Your task to perform on an android device: Go to wifi settings Image 0: 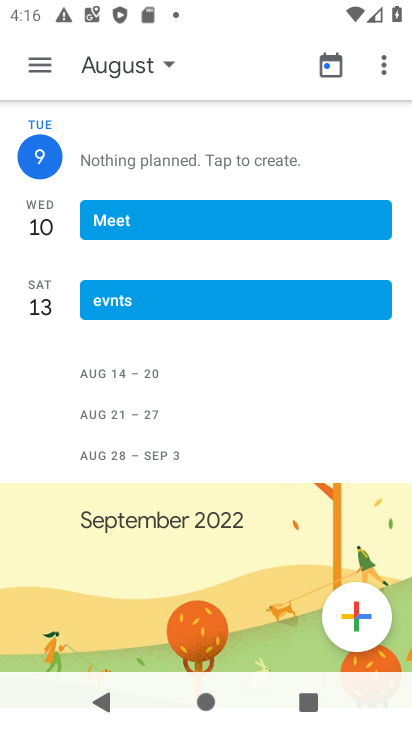
Step 0: drag from (183, 9) to (253, 431)
Your task to perform on an android device: Go to wifi settings Image 1: 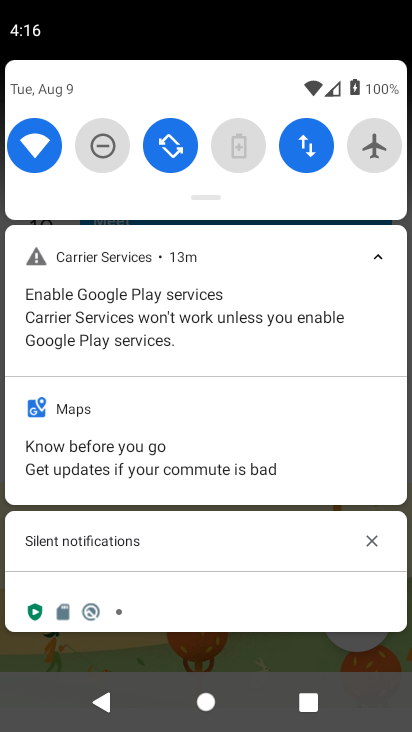
Step 1: click (42, 146)
Your task to perform on an android device: Go to wifi settings Image 2: 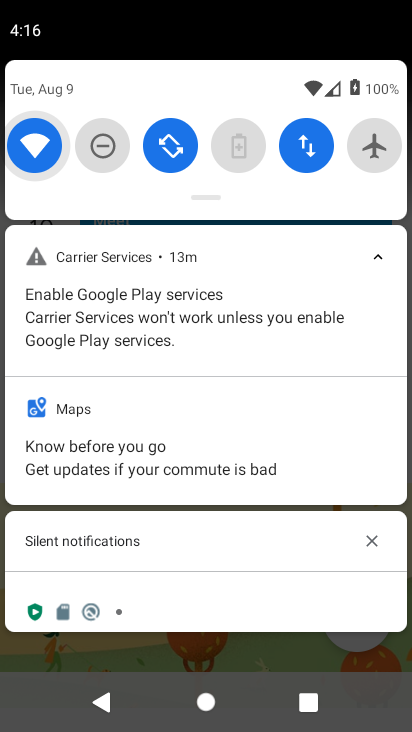
Step 2: click (42, 146)
Your task to perform on an android device: Go to wifi settings Image 3: 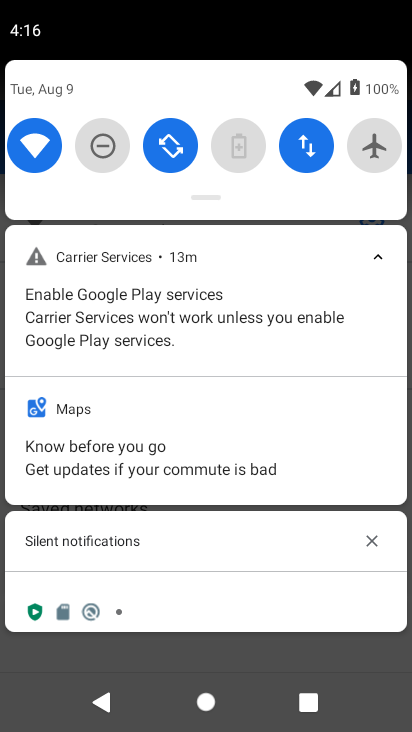
Step 3: click (50, 150)
Your task to perform on an android device: Go to wifi settings Image 4: 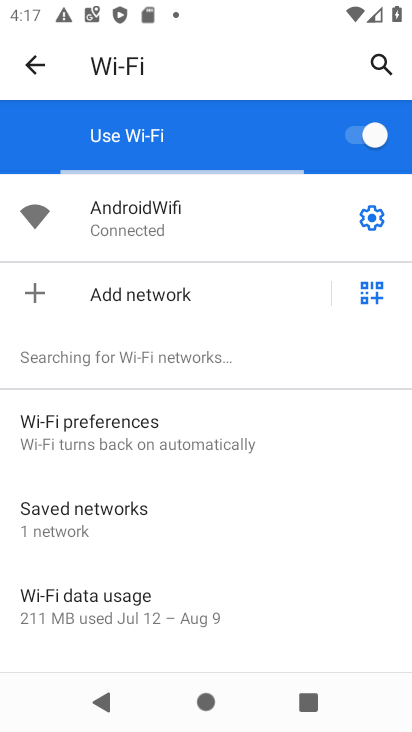
Step 4: task complete